Your task to perform on an android device: Go to Android settings Image 0: 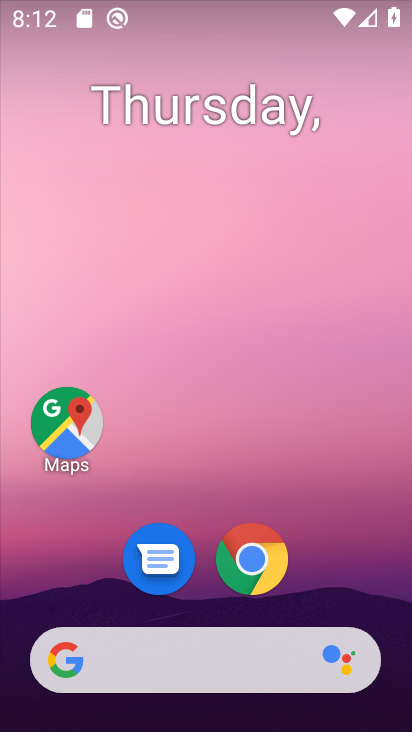
Step 0: drag from (205, 605) to (175, 246)
Your task to perform on an android device: Go to Android settings Image 1: 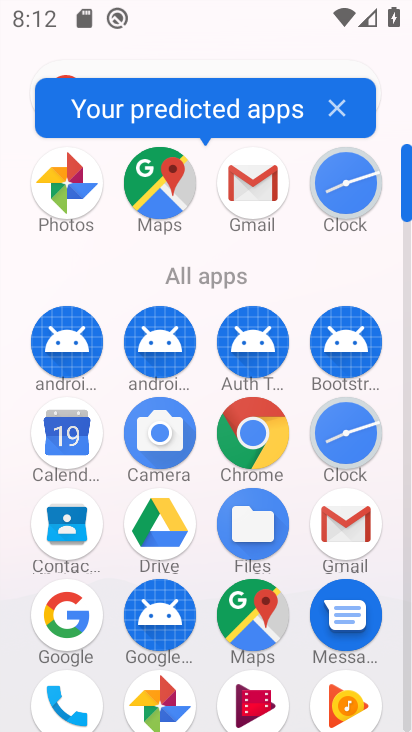
Step 1: drag from (212, 588) to (120, 13)
Your task to perform on an android device: Go to Android settings Image 2: 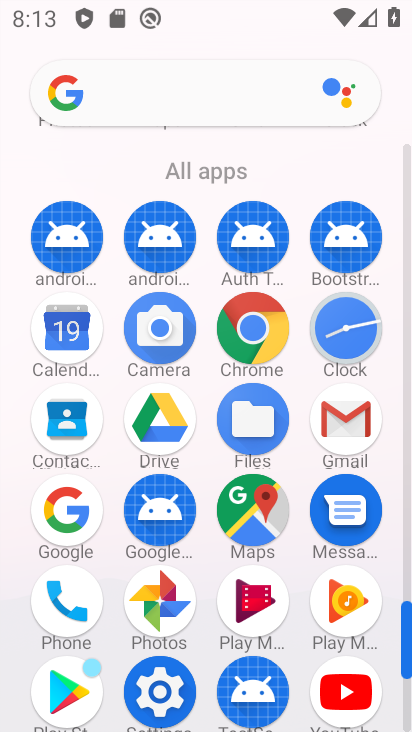
Step 2: click (157, 678)
Your task to perform on an android device: Go to Android settings Image 3: 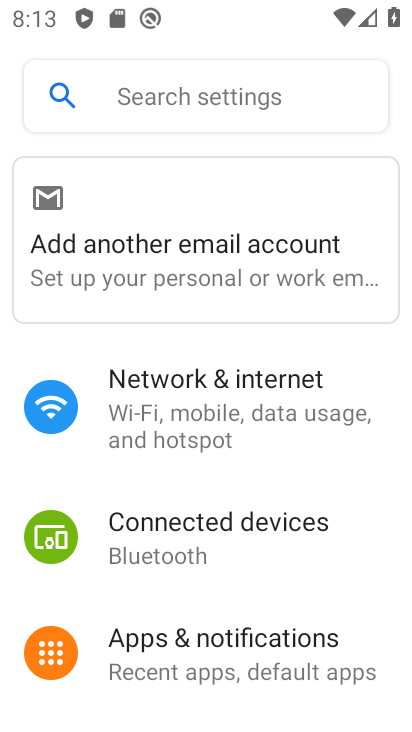
Step 3: task complete